Your task to perform on an android device: Find coffee shops on Maps Image 0: 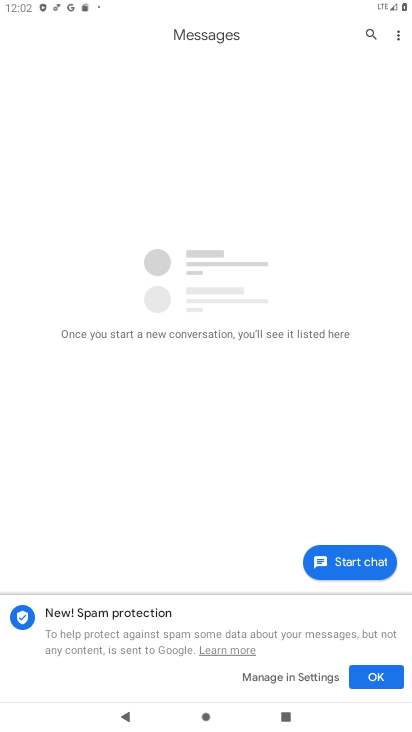
Step 0: press home button
Your task to perform on an android device: Find coffee shops on Maps Image 1: 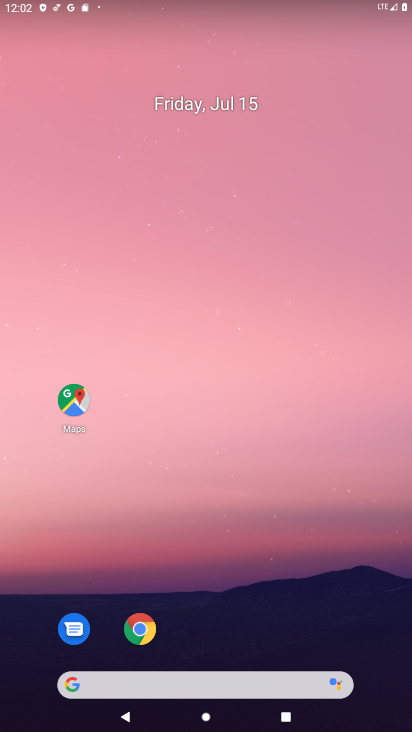
Step 1: click (82, 393)
Your task to perform on an android device: Find coffee shops on Maps Image 2: 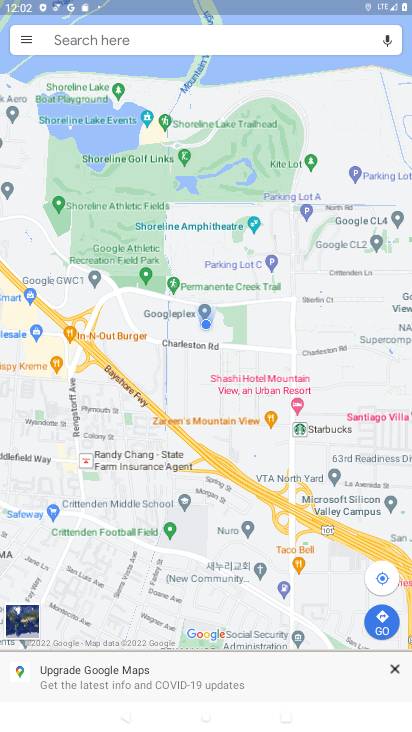
Step 2: click (68, 40)
Your task to perform on an android device: Find coffee shops on Maps Image 3: 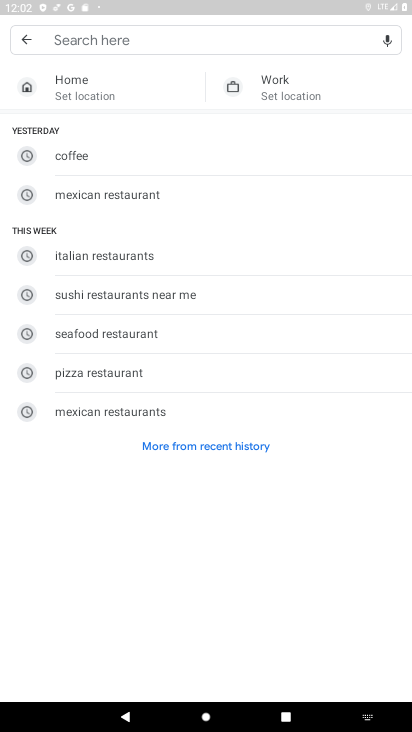
Step 3: click (75, 144)
Your task to perform on an android device: Find coffee shops on Maps Image 4: 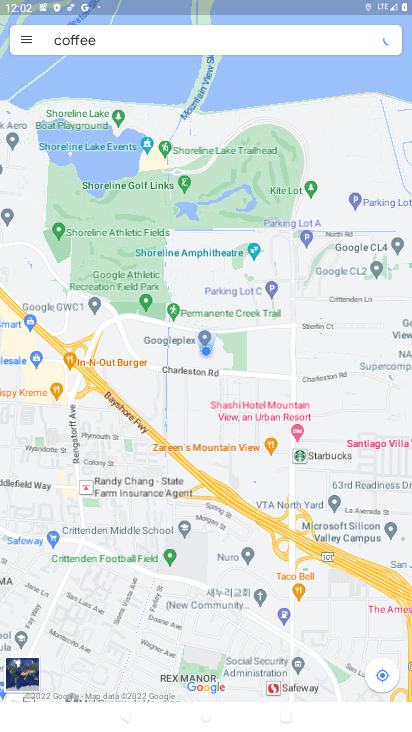
Step 4: task complete